Your task to perform on an android device: Open the Play Movies app and select the watchlist tab. Image 0: 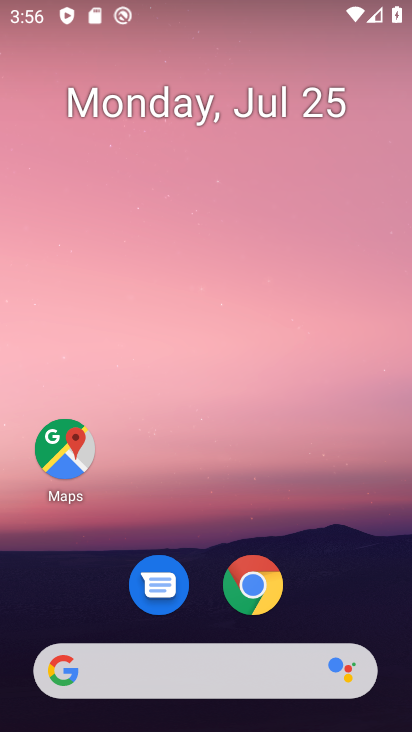
Step 0: drag from (331, 580) to (333, 20)
Your task to perform on an android device: Open the Play Movies app and select the watchlist tab. Image 1: 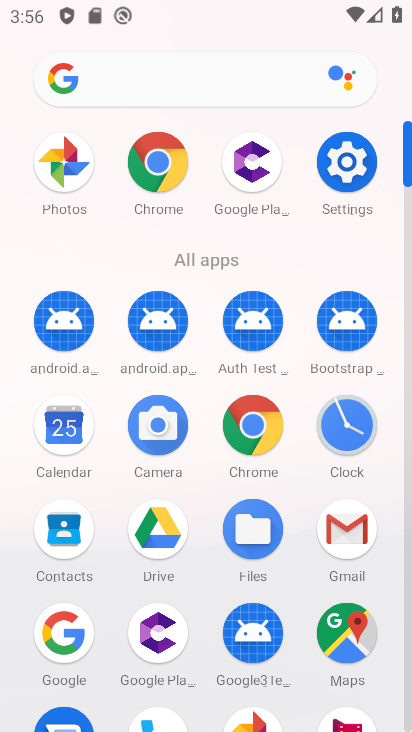
Step 1: drag from (304, 571) to (316, 223)
Your task to perform on an android device: Open the Play Movies app and select the watchlist tab. Image 2: 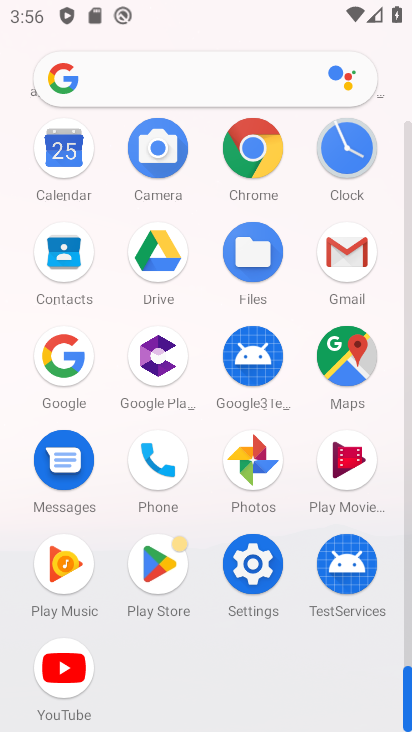
Step 2: click (337, 455)
Your task to perform on an android device: Open the Play Movies app and select the watchlist tab. Image 3: 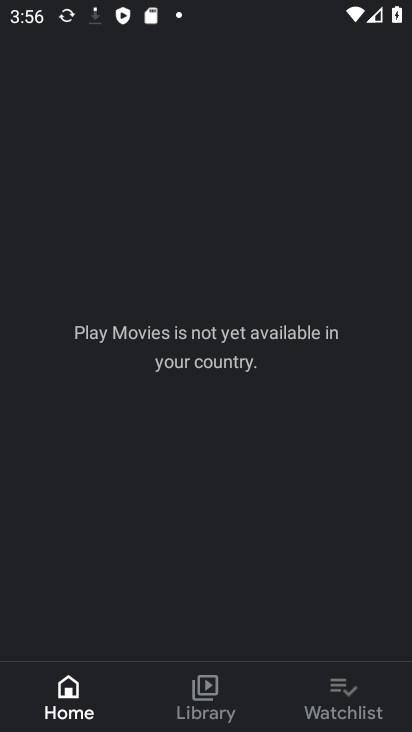
Step 3: click (339, 699)
Your task to perform on an android device: Open the Play Movies app and select the watchlist tab. Image 4: 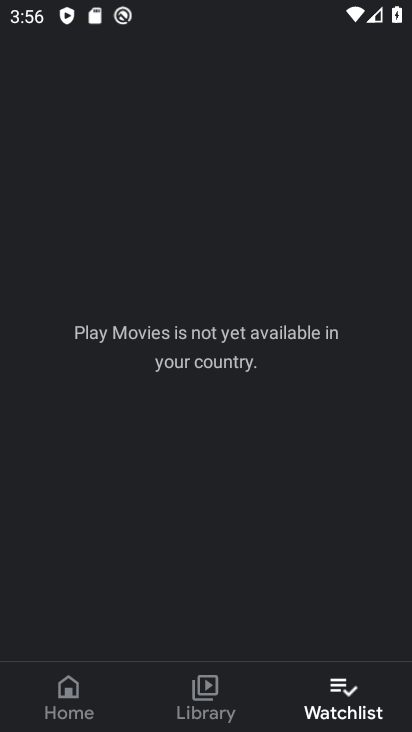
Step 4: task complete